Your task to perform on an android device: Open sound settings Image 0: 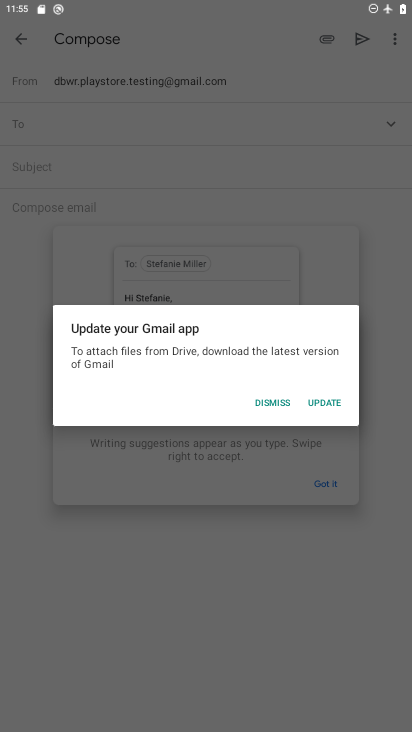
Step 0: press home button
Your task to perform on an android device: Open sound settings Image 1: 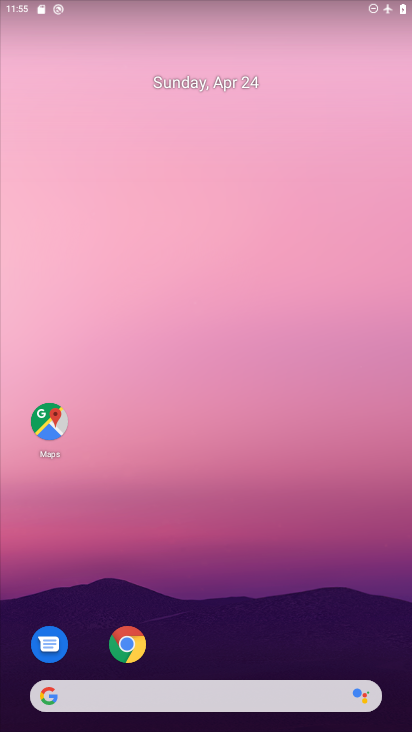
Step 1: drag from (182, 457) to (229, 44)
Your task to perform on an android device: Open sound settings Image 2: 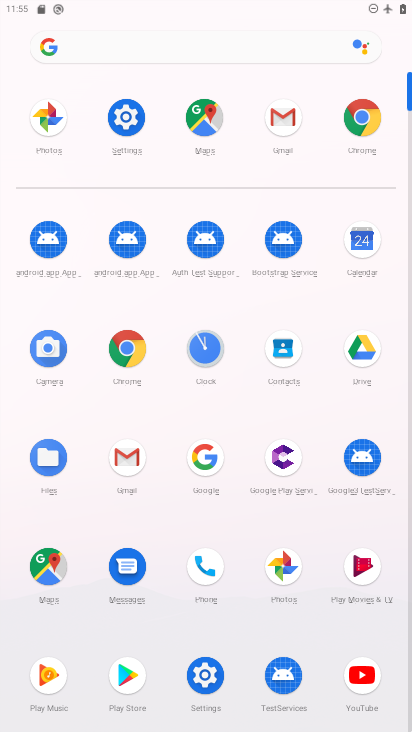
Step 2: click (201, 683)
Your task to perform on an android device: Open sound settings Image 3: 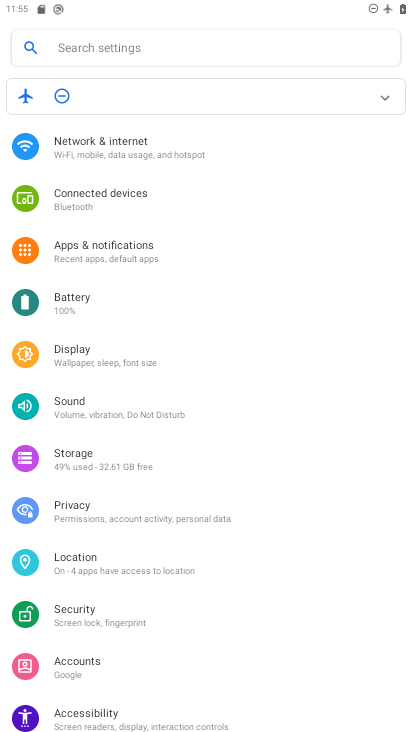
Step 3: click (117, 413)
Your task to perform on an android device: Open sound settings Image 4: 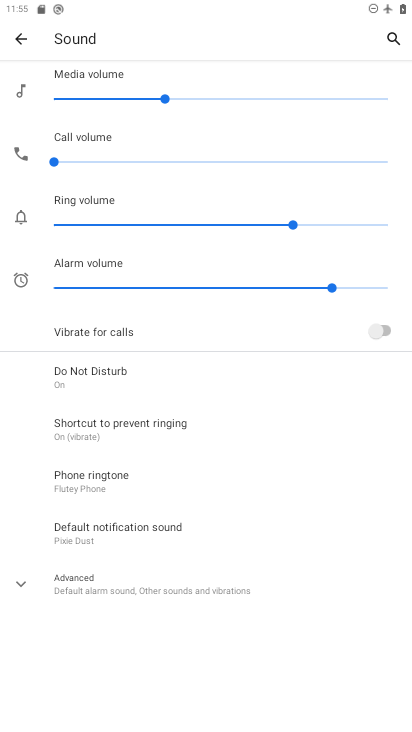
Step 4: task complete